Your task to perform on an android device: open a bookmark in the chrome app Image 0: 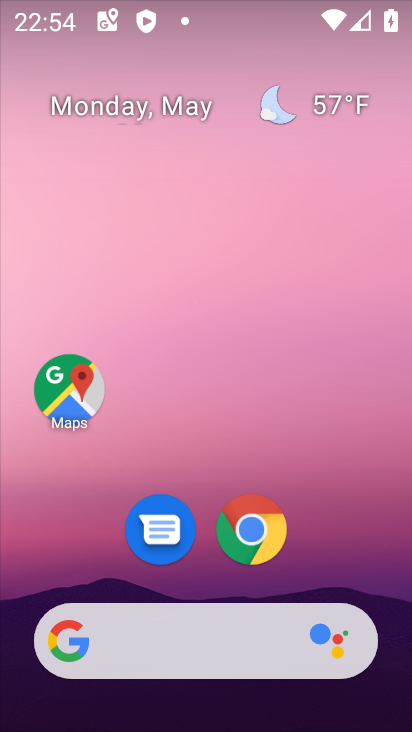
Step 0: click (252, 531)
Your task to perform on an android device: open a bookmark in the chrome app Image 1: 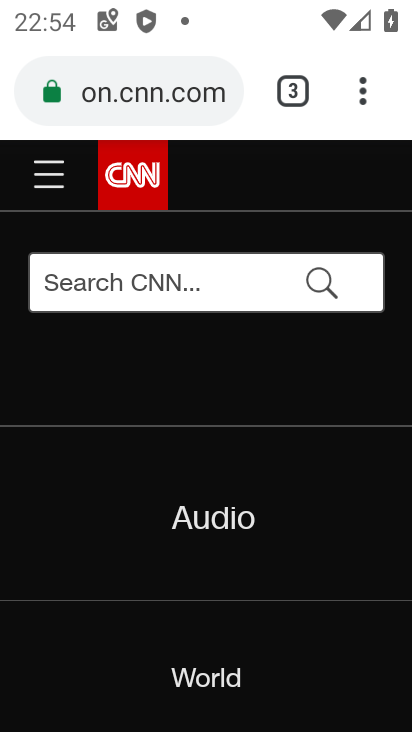
Step 1: click (363, 99)
Your task to perform on an android device: open a bookmark in the chrome app Image 2: 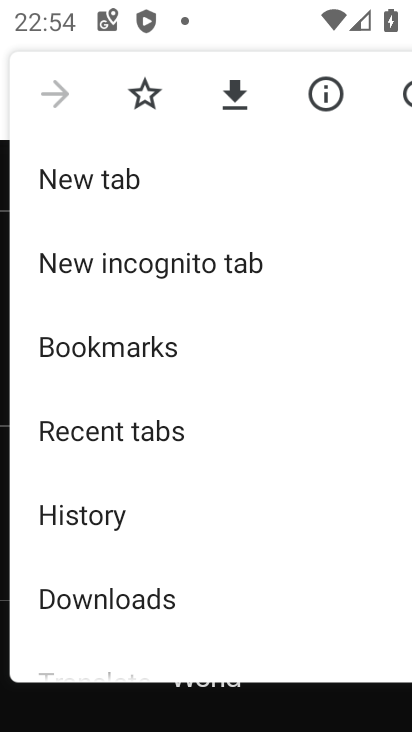
Step 2: click (146, 346)
Your task to perform on an android device: open a bookmark in the chrome app Image 3: 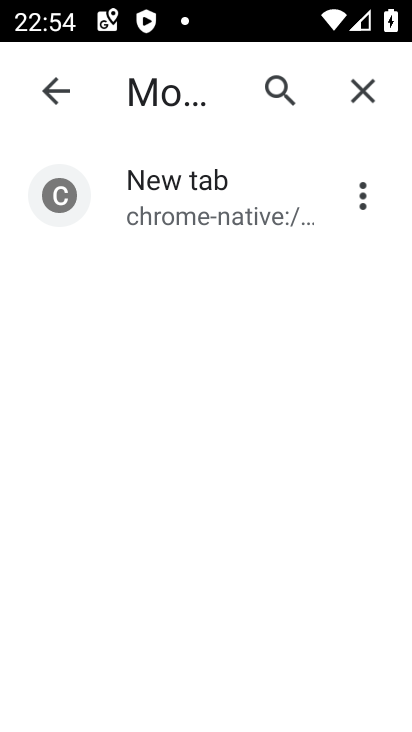
Step 3: click (175, 199)
Your task to perform on an android device: open a bookmark in the chrome app Image 4: 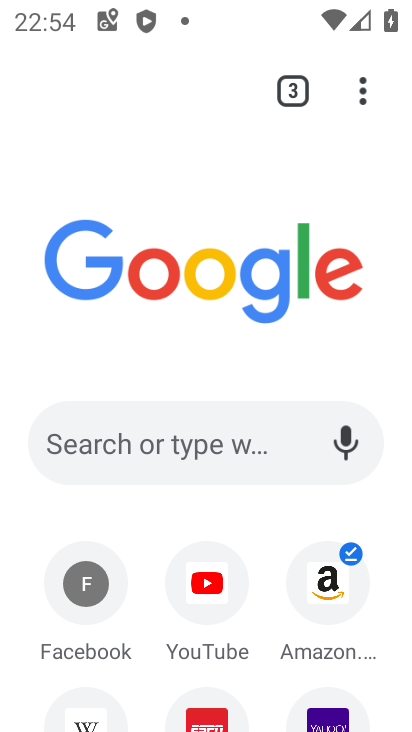
Step 4: task complete